Your task to perform on an android device: Open calendar and show me the first week of next month Image 0: 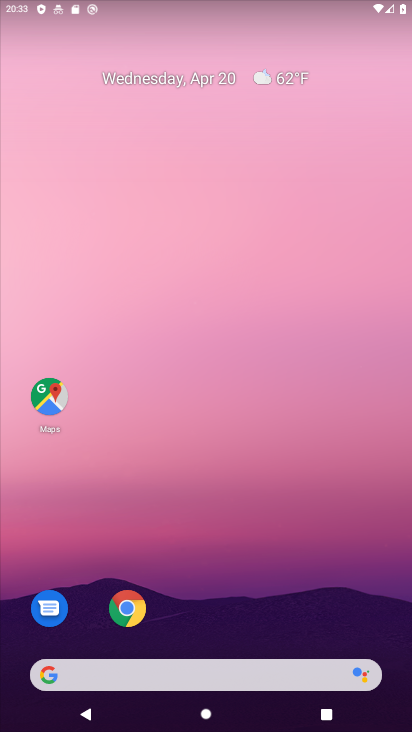
Step 0: drag from (305, 607) to (350, 30)
Your task to perform on an android device: Open calendar and show me the first week of next month Image 1: 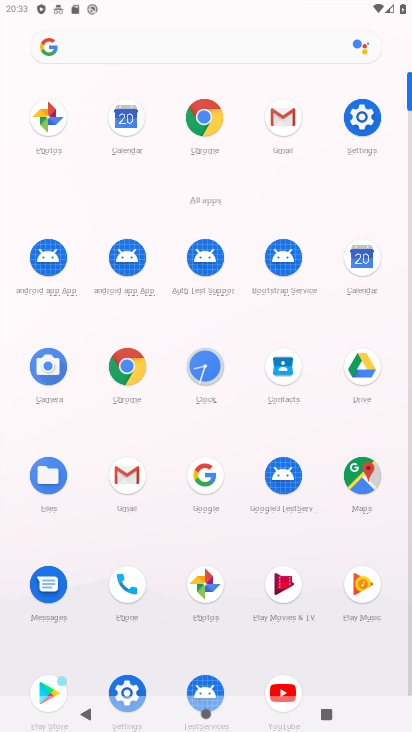
Step 1: click (370, 247)
Your task to perform on an android device: Open calendar and show me the first week of next month Image 2: 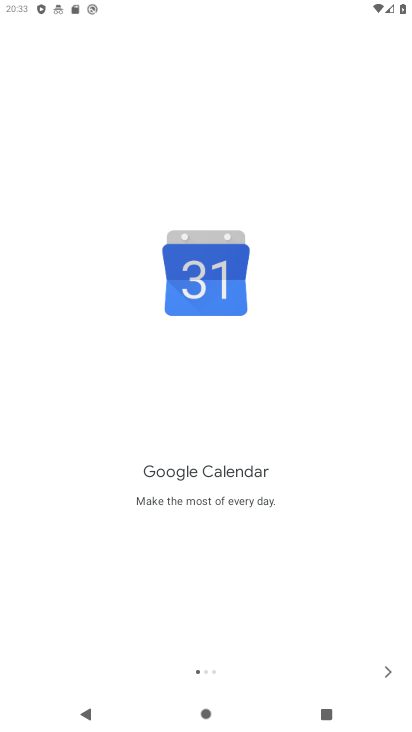
Step 2: click (380, 670)
Your task to perform on an android device: Open calendar and show me the first week of next month Image 3: 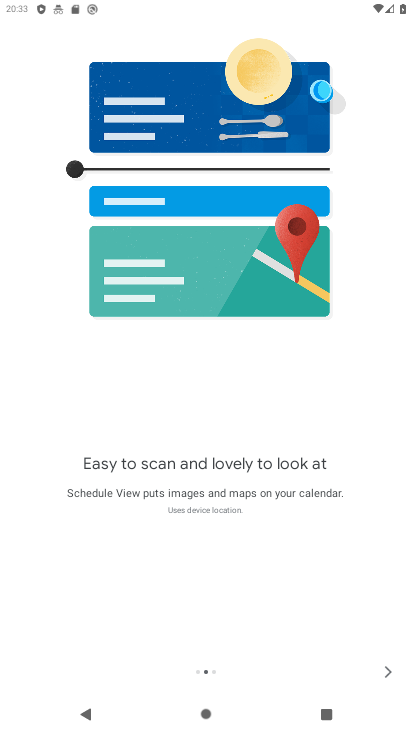
Step 3: click (380, 670)
Your task to perform on an android device: Open calendar and show me the first week of next month Image 4: 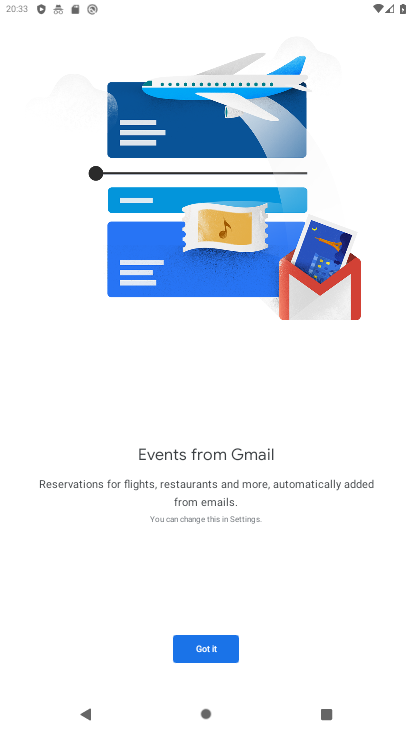
Step 4: click (207, 659)
Your task to perform on an android device: Open calendar and show me the first week of next month Image 5: 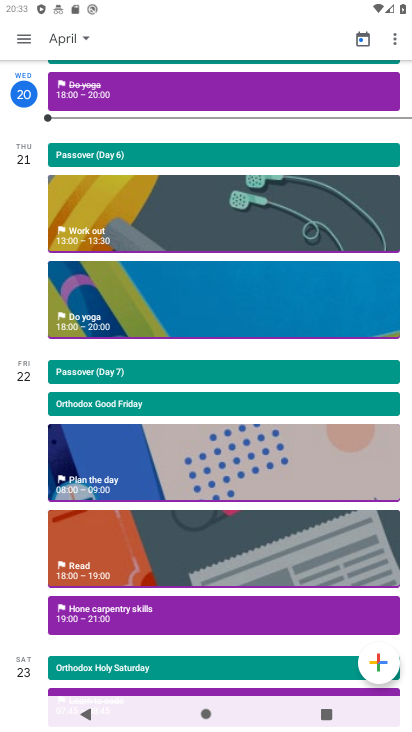
Step 5: click (74, 39)
Your task to perform on an android device: Open calendar and show me the first week of next month Image 6: 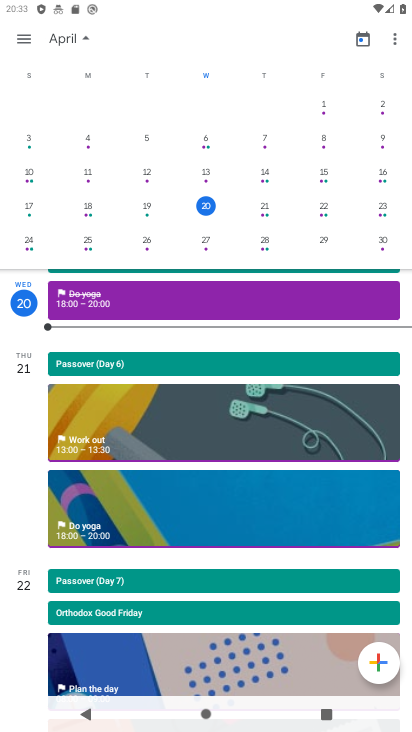
Step 6: task complete